Your task to perform on an android device: toggle javascript in the chrome app Image 0: 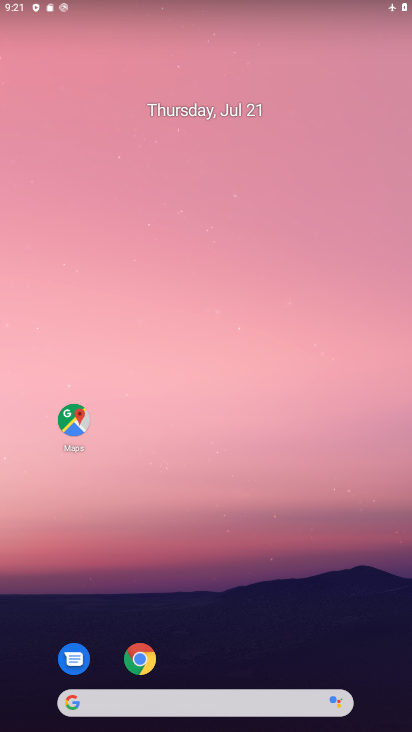
Step 0: drag from (185, 659) to (156, 78)
Your task to perform on an android device: toggle javascript in the chrome app Image 1: 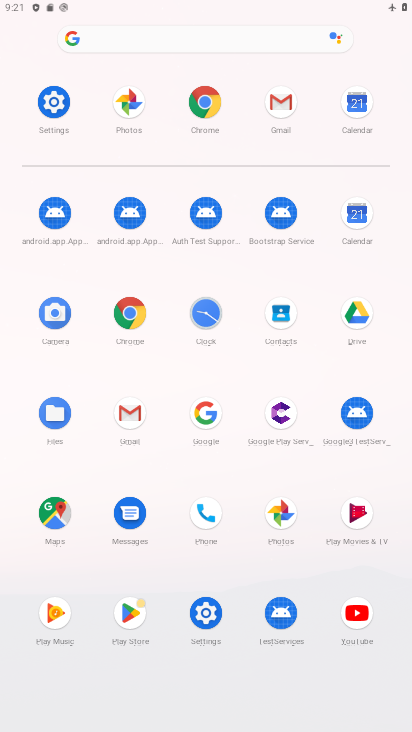
Step 1: click (115, 309)
Your task to perform on an android device: toggle javascript in the chrome app Image 2: 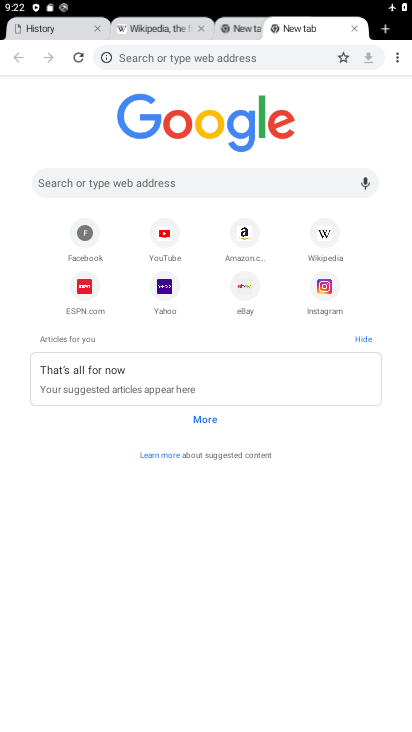
Step 2: drag from (398, 60) to (290, 264)
Your task to perform on an android device: toggle javascript in the chrome app Image 3: 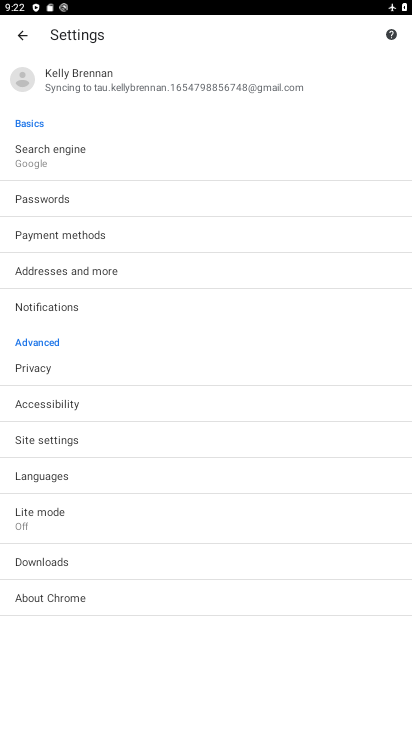
Step 3: click (66, 442)
Your task to perform on an android device: toggle javascript in the chrome app Image 4: 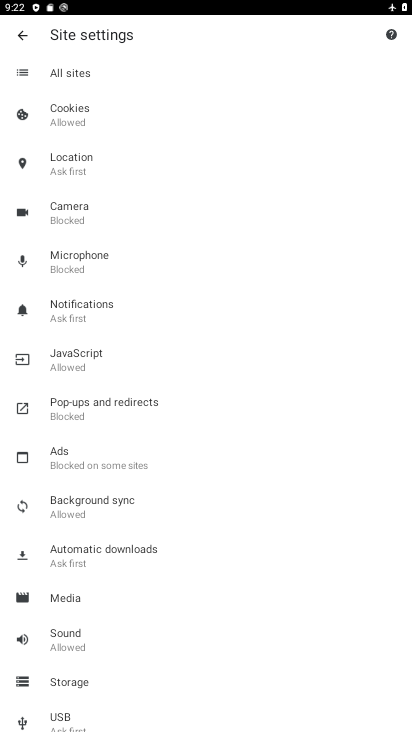
Step 4: click (73, 356)
Your task to perform on an android device: toggle javascript in the chrome app Image 5: 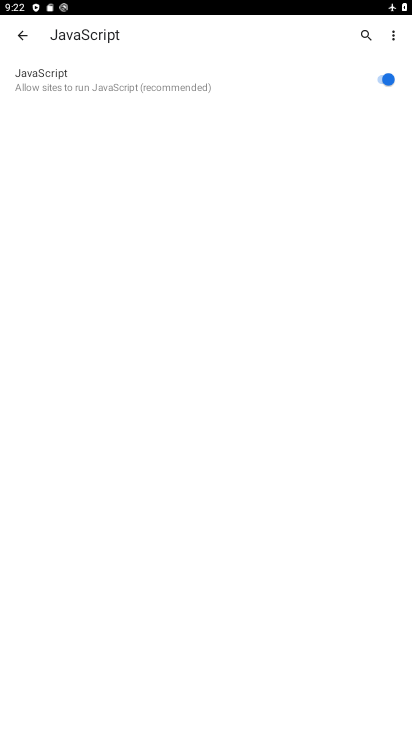
Step 5: click (388, 82)
Your task to perform on an android device: toggle javascript in the chrome app Image 6: 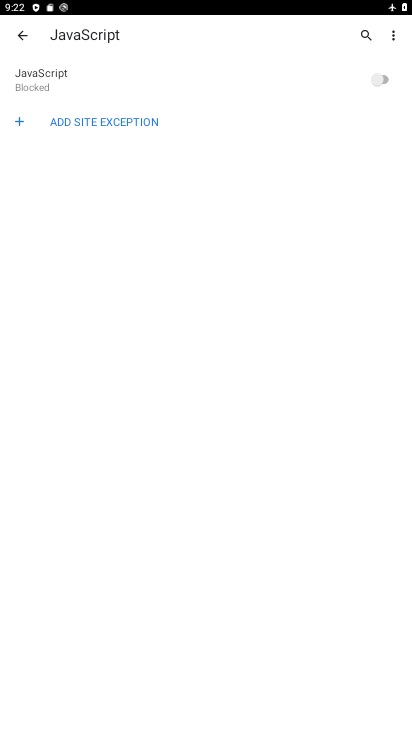
Step 6: task complete